Your task to perform on an android device: Go to settings Image 0: 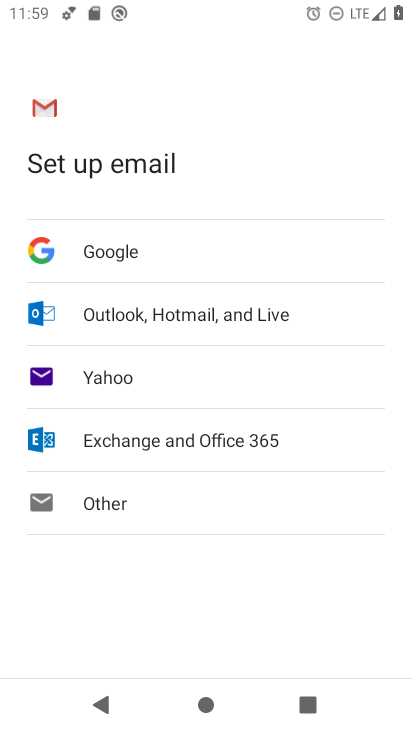
Step 0: press home button
Your task to perform on an android device: Go to settings Image 1: 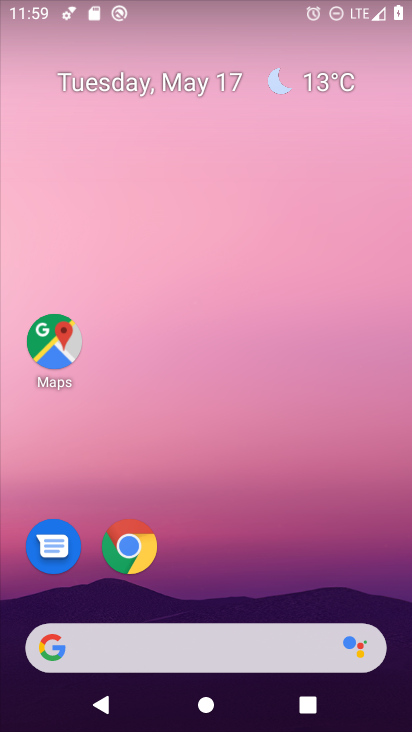
Step 1: drag from (249, 589) to (299, 3)
Your task to perform on an android device: Go to settings Image 2: 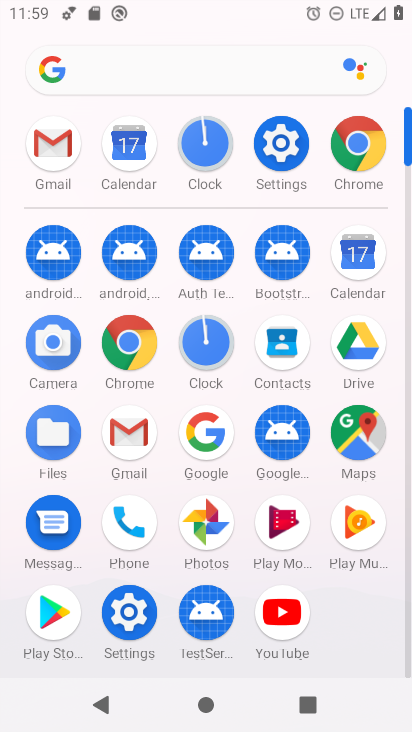
Step 2: click (270, 158)
Your task to perform on an android device: Go to settings Image 3: 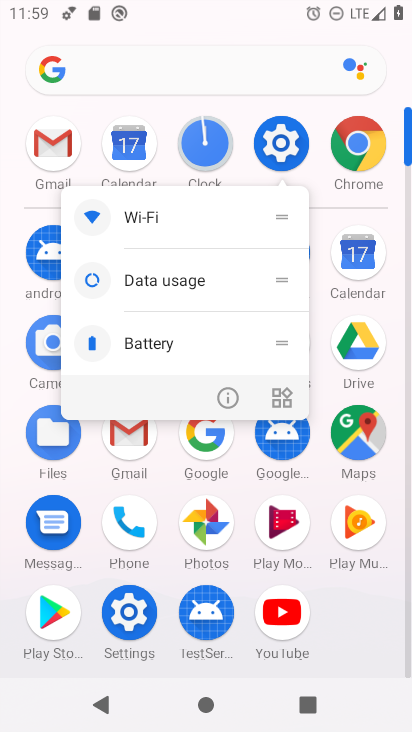
Step 3: click (274, 154)
Your task to perform on an android device: Go to settings Image 4: 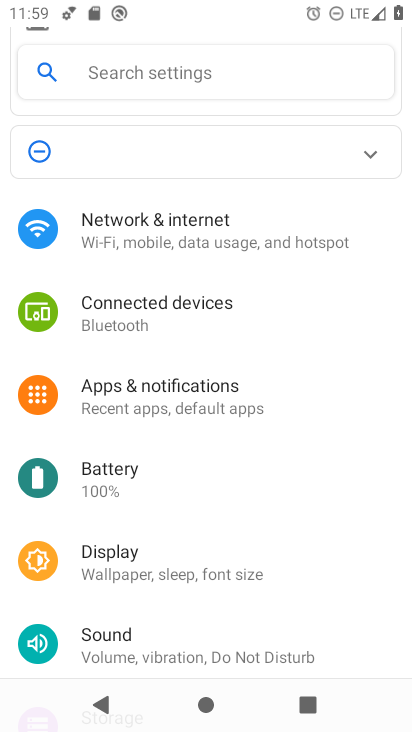
Step 4: task complete